Your task to perform on an android device: open app "Adobe Acrobat Reader" (install if not already installed) and enter user name: "nondescriptly@inbox.com" and password: "negating" Image 0: 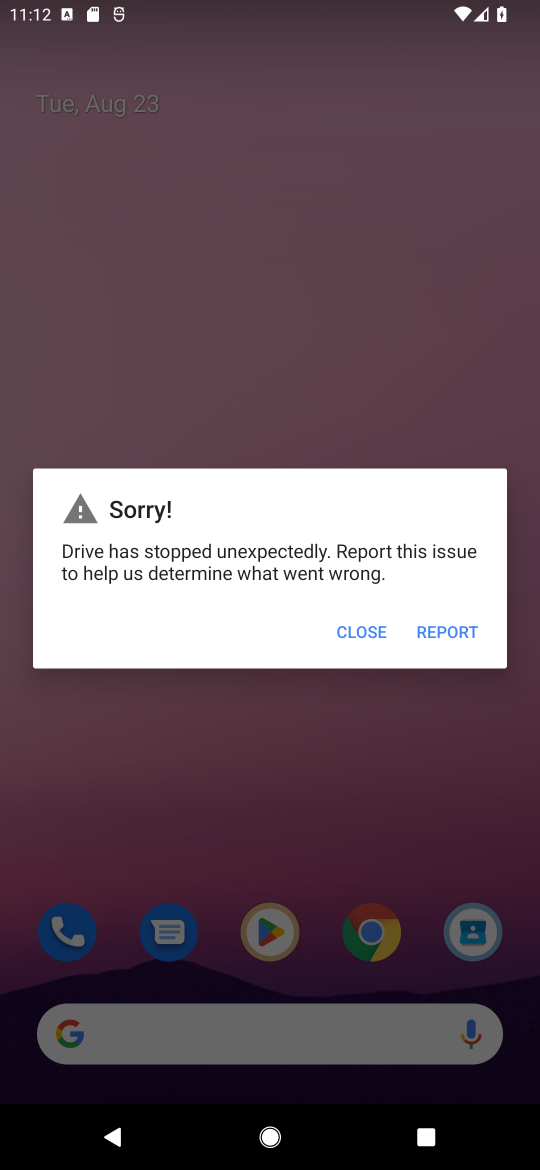
Step 0: click (356, 615)
Your task to perform on an android device: open app "Adobe Acrobat Reader" (install if not already installed) and enter user name: "nondescriptly@inbox.com" and password: "negating" Image 1: 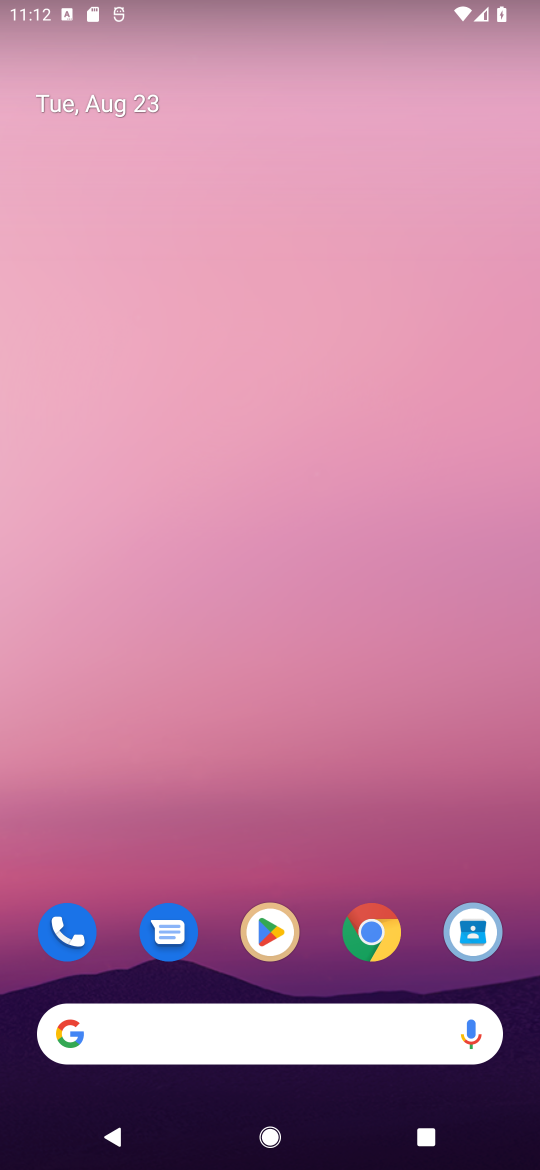
Step 1: click (242, 941)
Your task to perform on an android device: open app "Adobe Acrobat Reader" (install if not already installed) and enter user name: "nondescriptly@inbox.com" and password: "negating" Image 2: 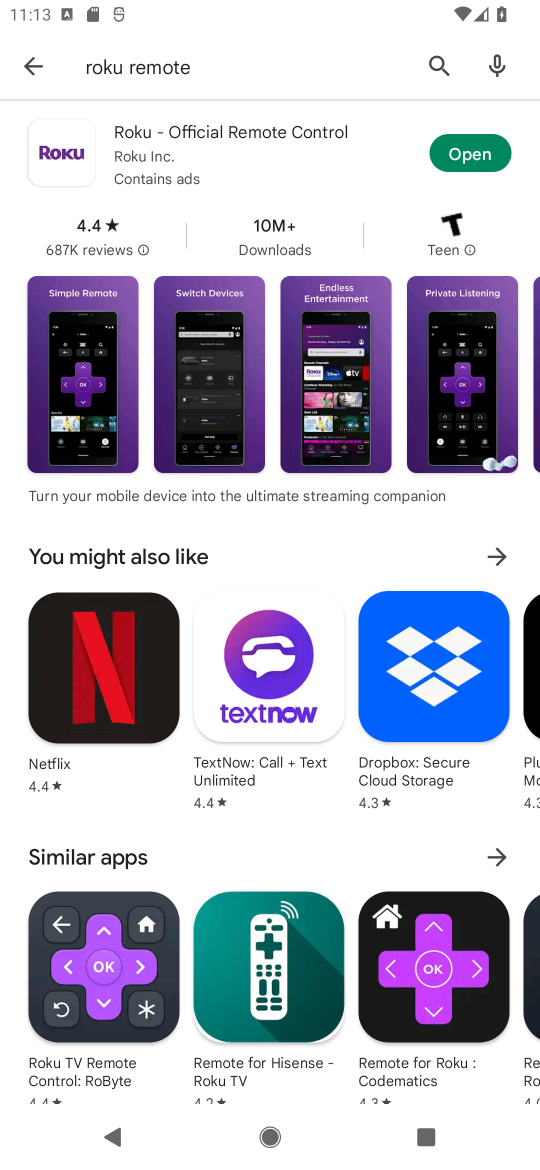
Step 2: click (426, 62)
Your task to perform on an android device: open app "Adobe Acrobat Reader" (install if not already installed) and enter user name: "nondescriptly@inbox.com" and password: "negating" Image 3: 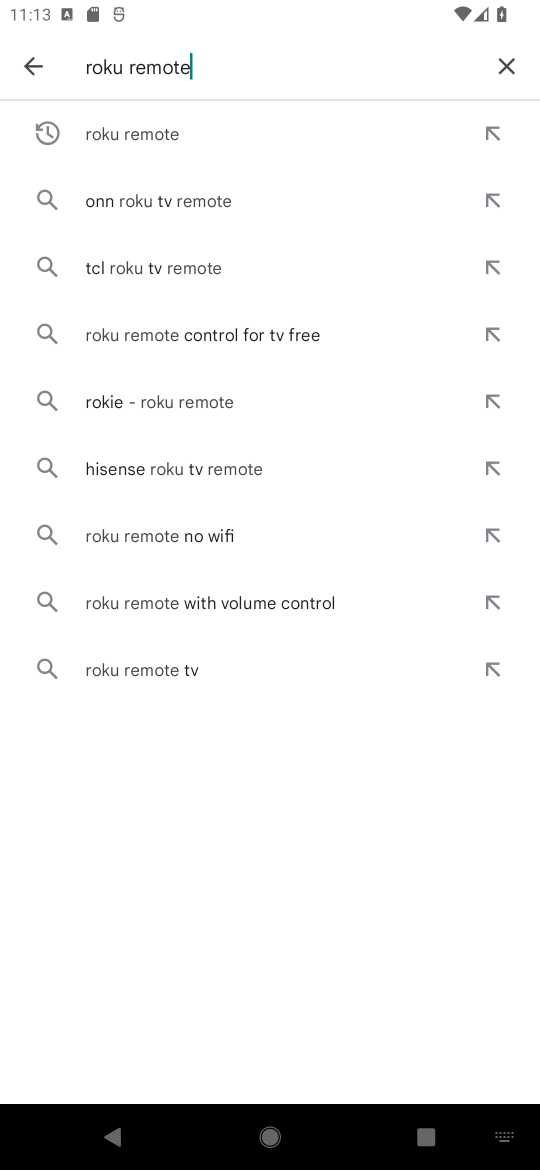
Step 3: click (496, 62)
Your task to perform on an android device: open app "Adobe Acrobat Reader" (install if not already installed) and enter user name: "nondescriptly@inbox.com" and password: "negating" Image 4: 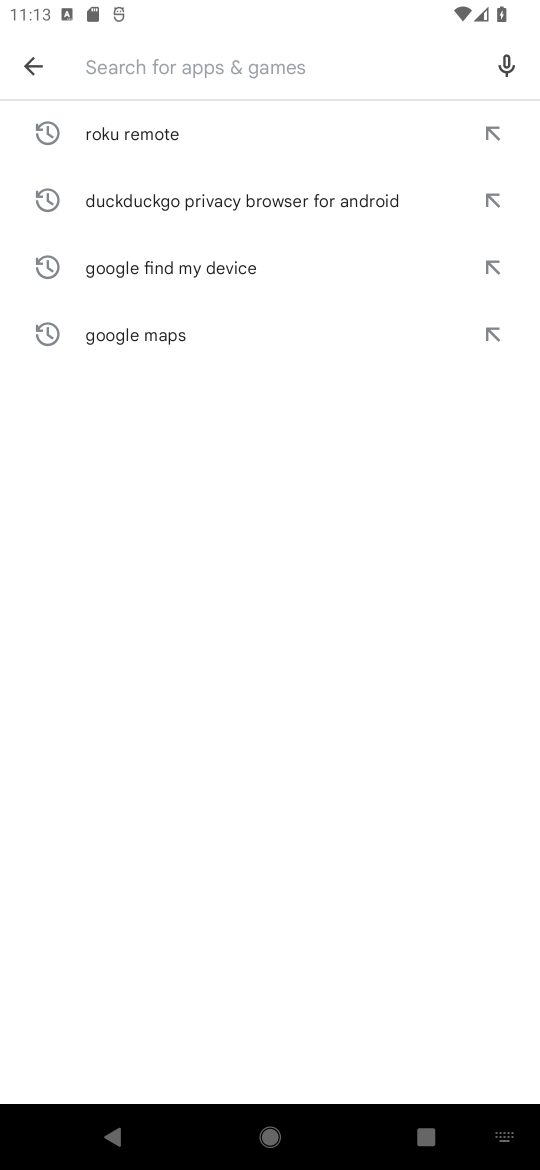
Step 4: click (186, 57)
Your task to perform on an android device: open app "Adobe Acrobat Reader" (install if not already installed) and enter user name: "nondescriptly@inbox.com" and password: "negating" Image 5: 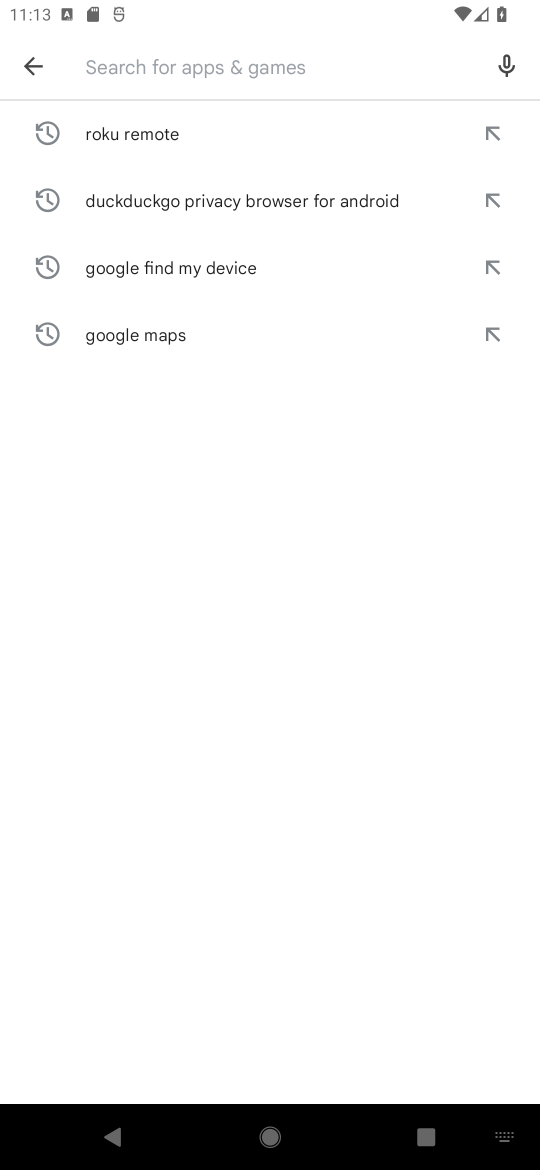
Step 5: type "Adobe Acrobat Reader"
Your task to perform on an android device: open app "Adobe Acrobat Reader" (install if not already installed) and enter user name: "nondescriptly@inbox.com" and password: "negating" Image 6: 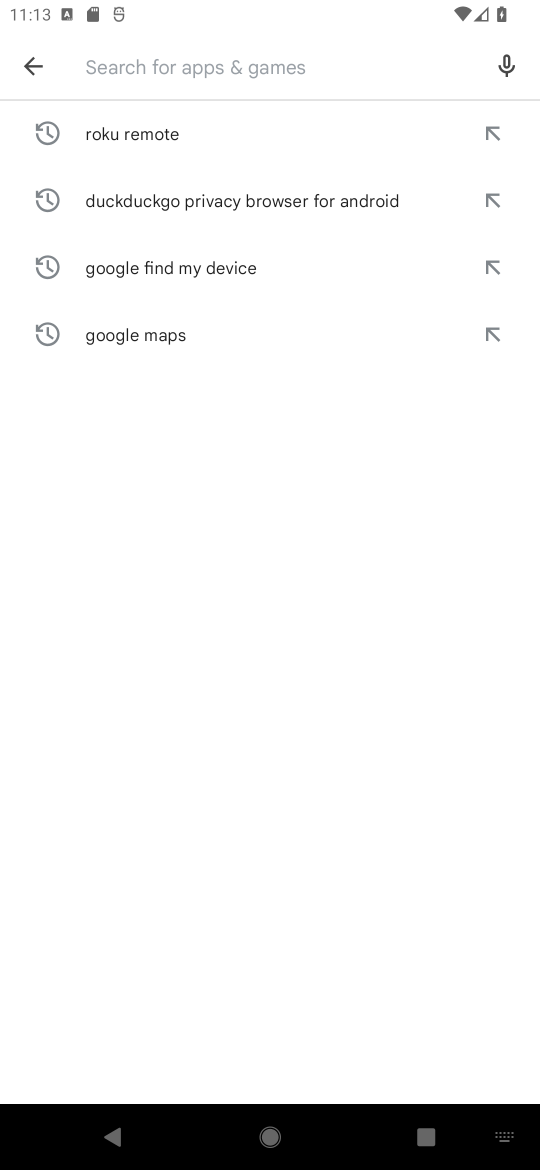
Step 6: click (379, 727)
Your task to perform on an android device: open app "Adobe Acrobat Reader" (install if not already installed) and enter user name: "nondescriptly@inbox.com" and password: "negating" Image 7: 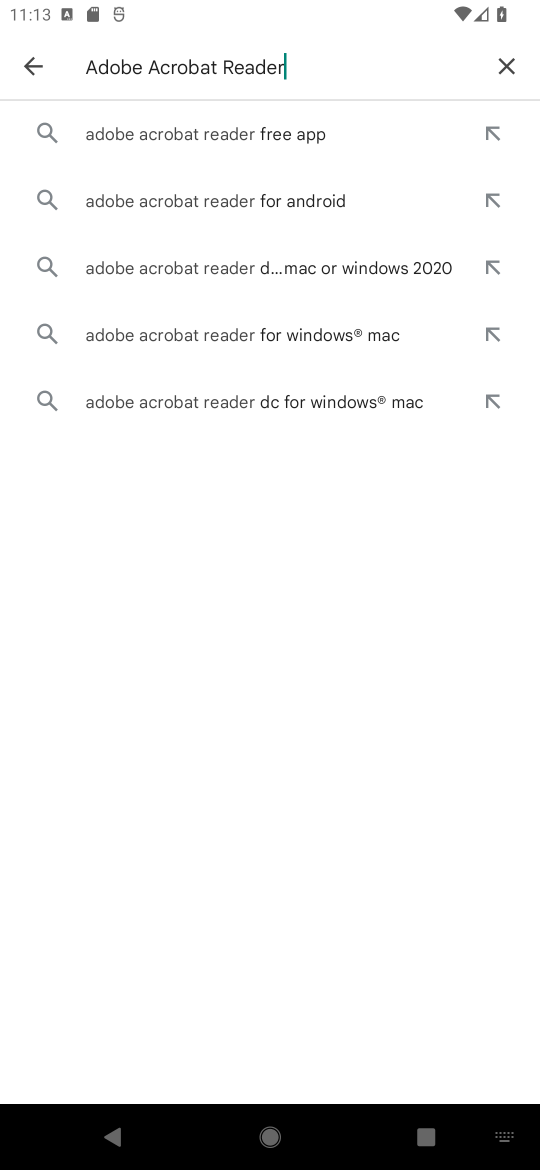
Step 7: click (282, 125)
Your task to perform on an android device: open app "Adobe Acrobat Reader" (install if not already installed) and enter user name: "nondescriptly@inbox.com" and password: "negating" Image 8: 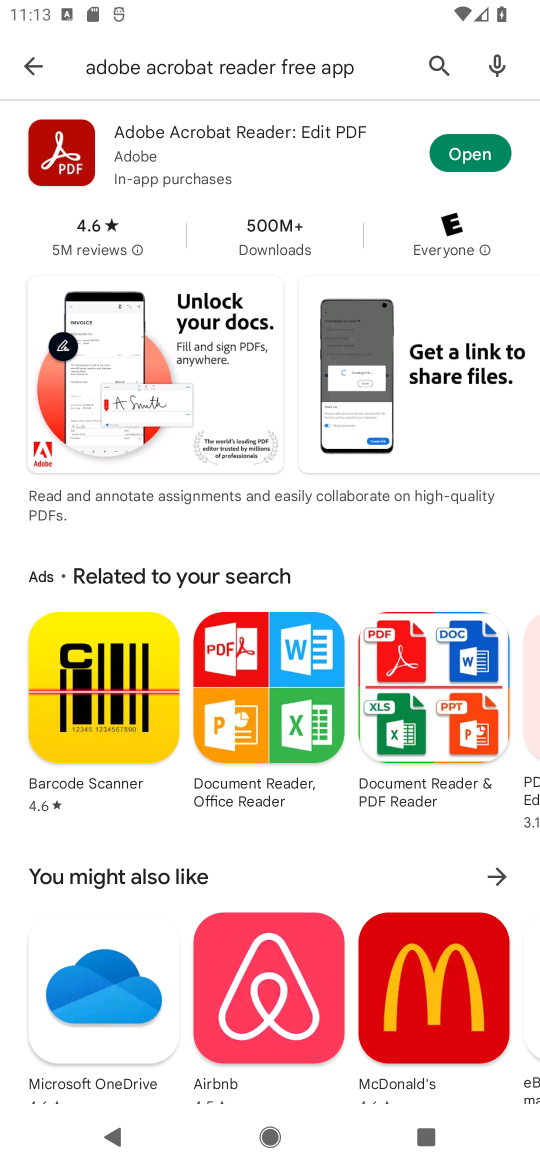
Step 8: click (489, 154)
Your task to perform on an android device: open app "Adobe Acrobat Reader" (install if not already installed) and enter user name: "nondescriptly@inbox.com" and password: "negating" Image 9: 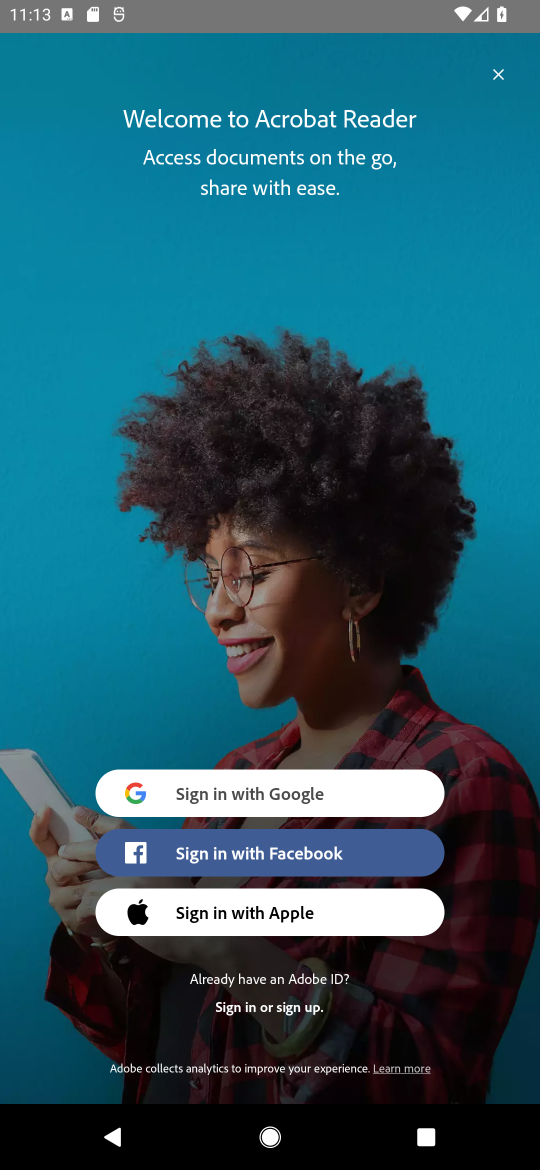
Step 9: click (291, 1012)
Your task to perform on an android device: open app "Adobe Acrobat Reader" (install if not already installed) and enter user name: "nondescriptly@inbox.com" and password: "negating" Image 10: 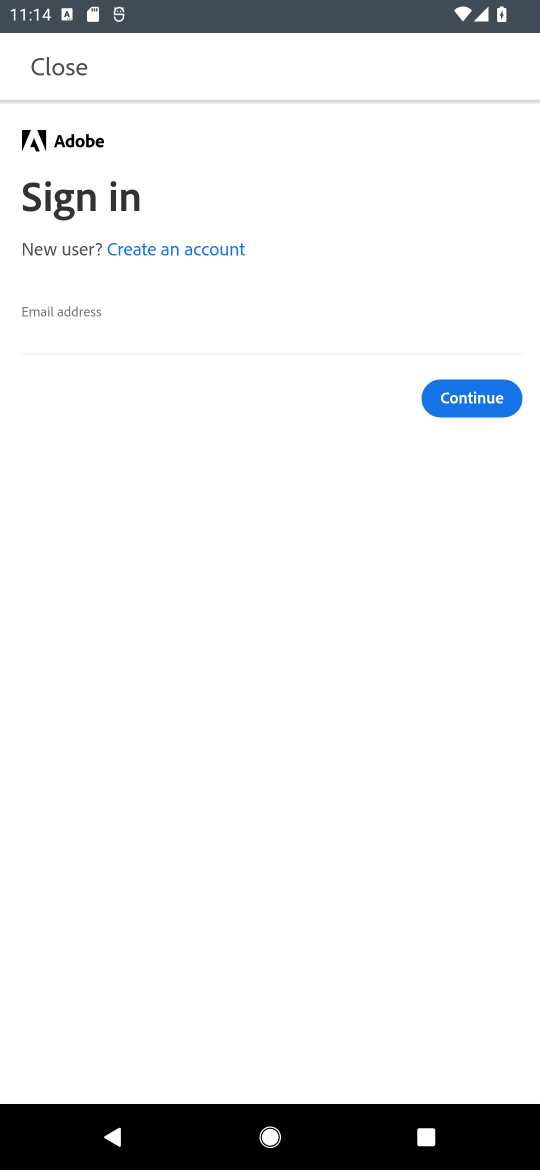
Step 10: click (85, 306)
Your task to perform on an android device: open app "Adobe Acrobat Reader" (install if not already installed) and enter user name: "nondescriptly@inbox.com" and password: "negating" Image 11: 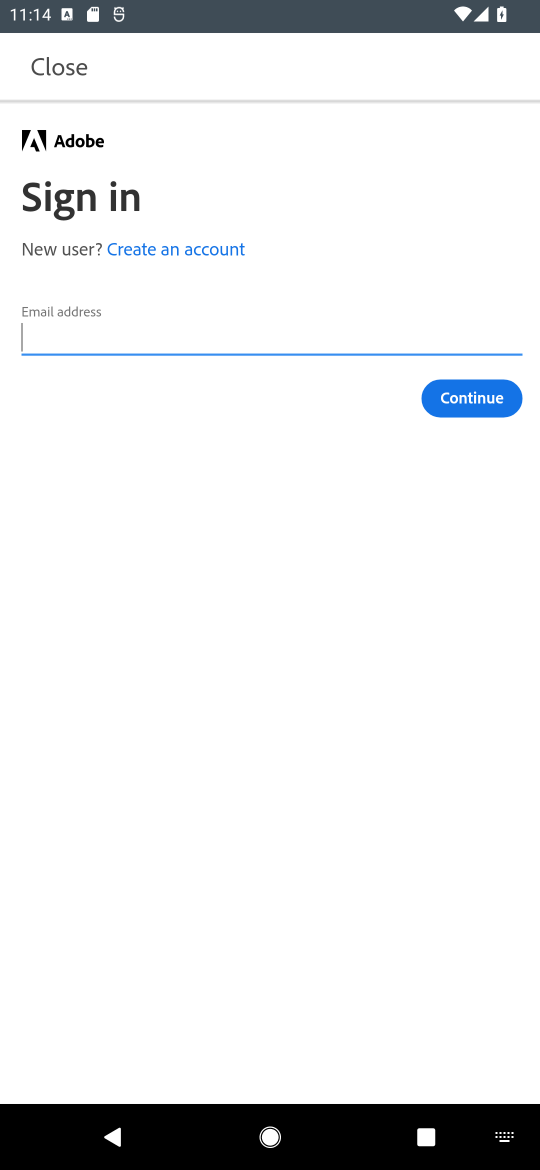
Step 11: click (110, 319)
Your task to perform on an android device: open app "Adobe Acrobat Reader" (install if not already installed) and enter user name: "nondescriptly@inbox.com" and password: "negating" Image 12: 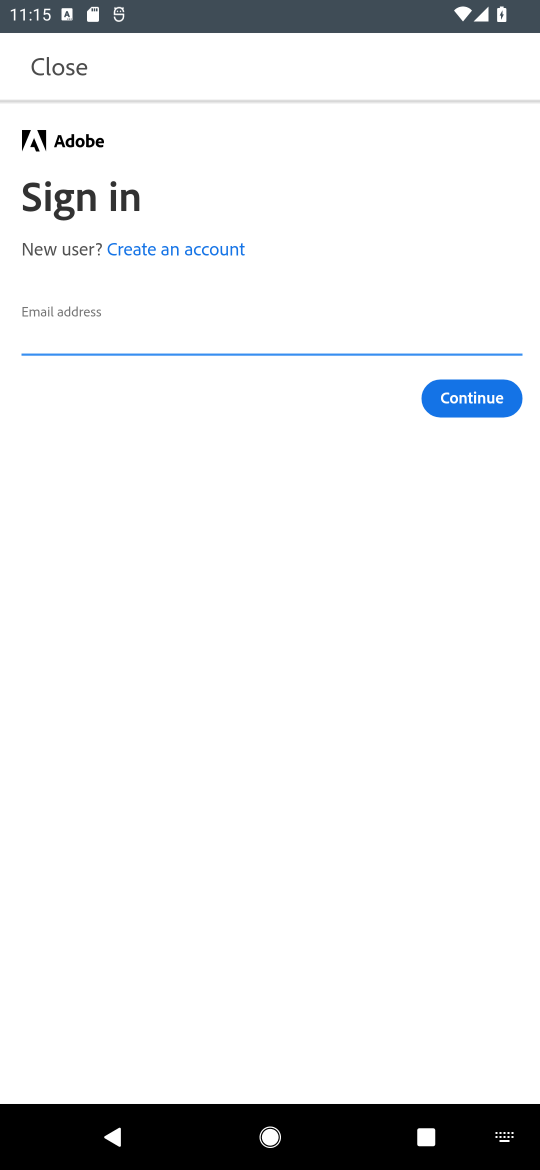
Step 12: type "nondescriptly@inbox.com"
Your task to perform on an android device: open app "Adobe Acrobat Reader" (install if not already installed) and enter user name: "nondescriptly@inbox.com" and password: "negating" Image 13: 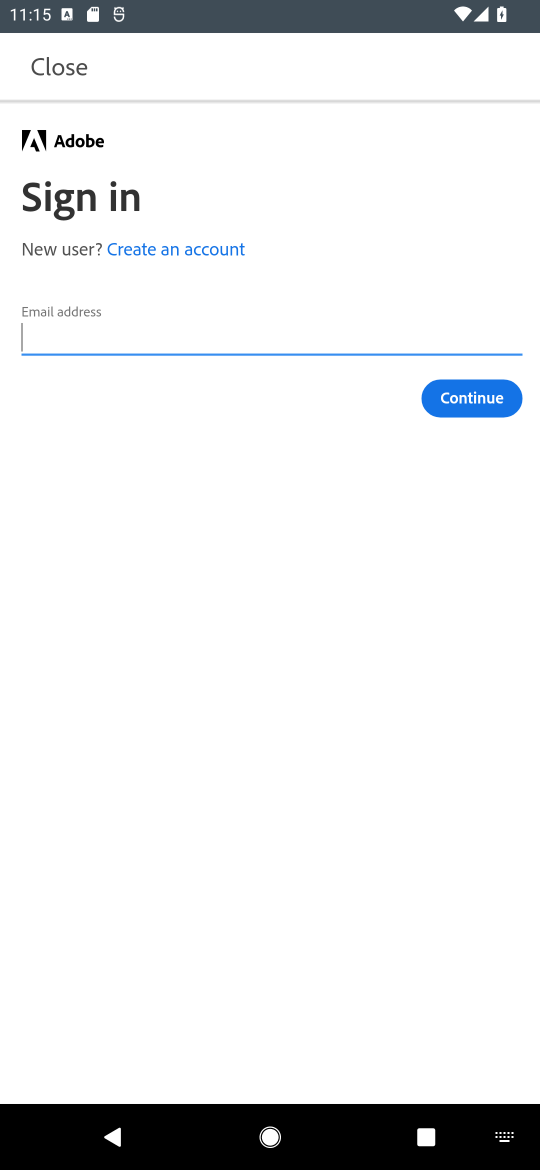
Step 13: click (282, 677)
Your task to perform on an android device: open app "Adobe Acrobat Reader" (install if not already installed) and enter user name: "nondescriptly@inbox.com" and password: "negating" Image 14: 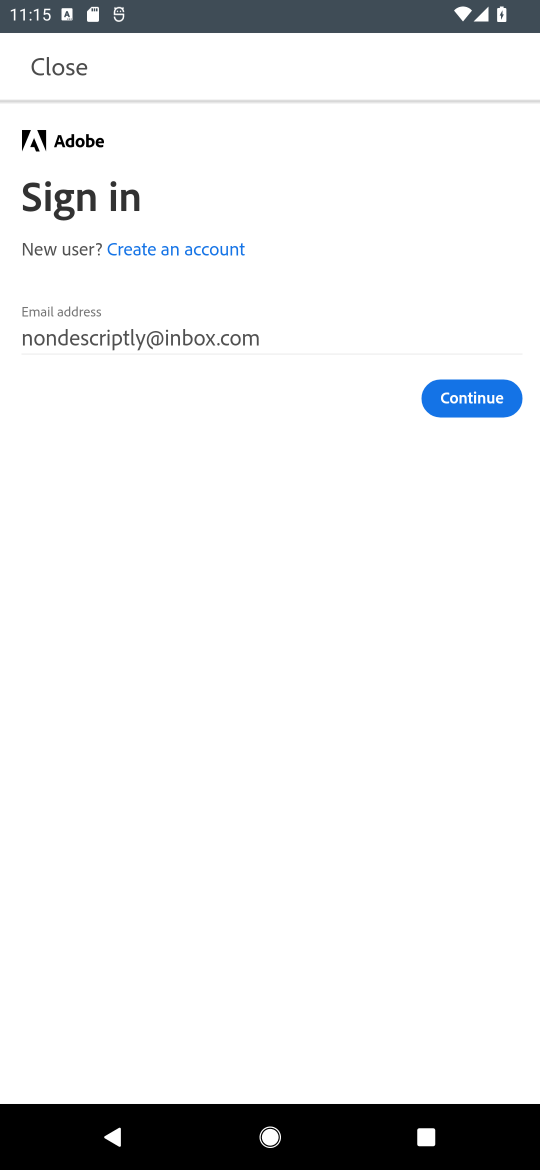
Step 14: click (472, 406)
Your task to perform on an android device: open app "Adobe Acrobat Reader" (install if not already installed) and enter user name: "nondescriptly@inbox.com" and password: "negating" Image 15: 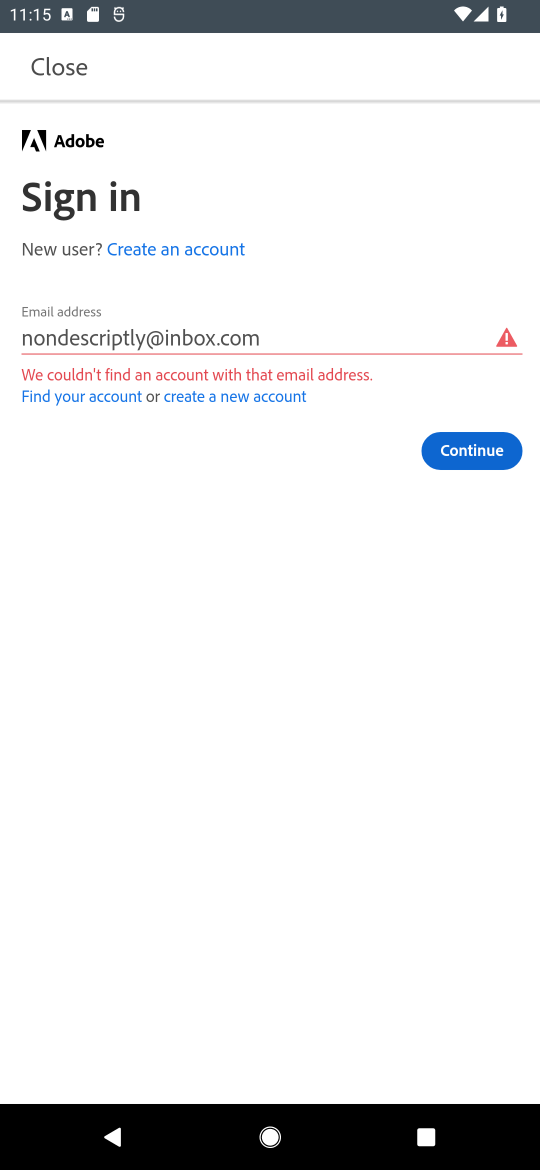
Step 15: task complete